Your task to perform on an android device: turn off wifi Image 0: 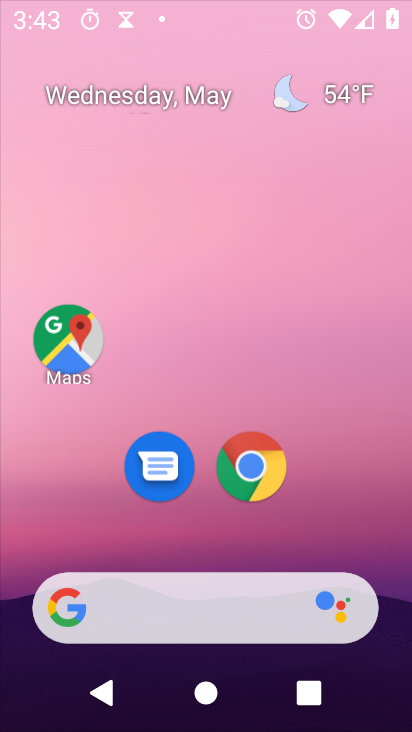
Step 0: click (47, 344)
Your task to perform on an android device: turn off wifi Image 1: 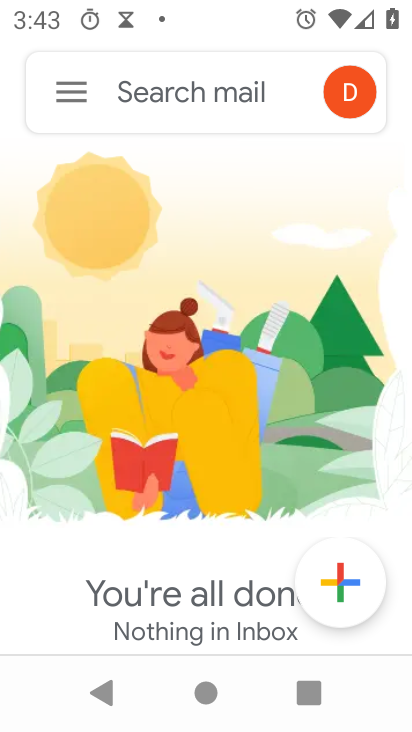
Step 1: press home button
Your task to perform on an android device: turn off wifi Image 2: 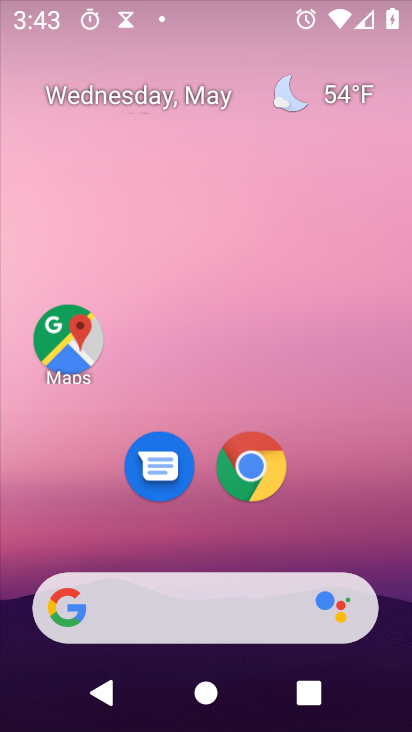
Step 2: drag from (363, 508) to (229, 114)
Your task to perform on an android device: turn off wifi Image 3: 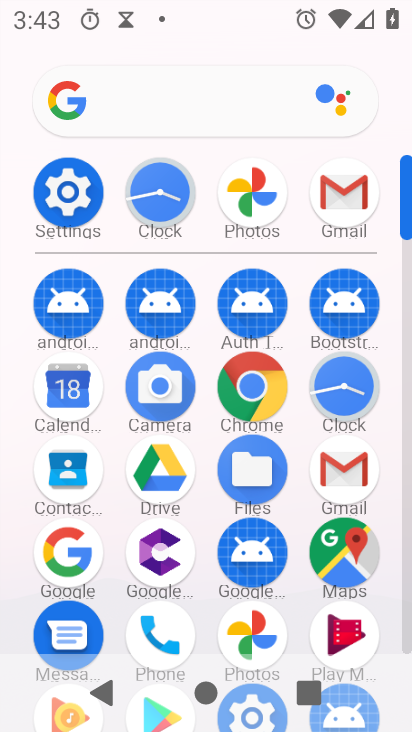
Step 3: click (66, 176)
Your task to perform on an android device: turn off wifi Image 4: 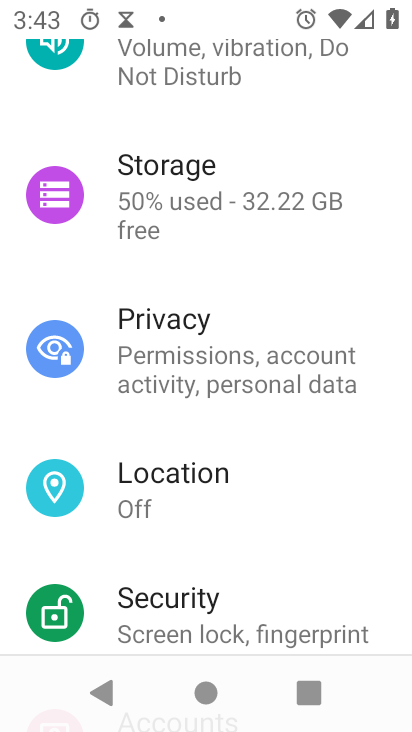
Step 4: drag from (228, 172) to (188, 687)
Your task to perform on an android device: turn off wifi Image 5: 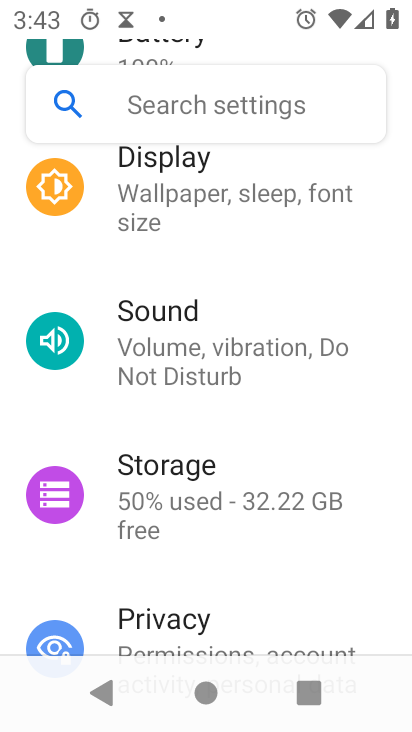
Step 5: drag from (301, 219) to (331, 689)
Your task to perform on an android device: turn off wifi Image 6: 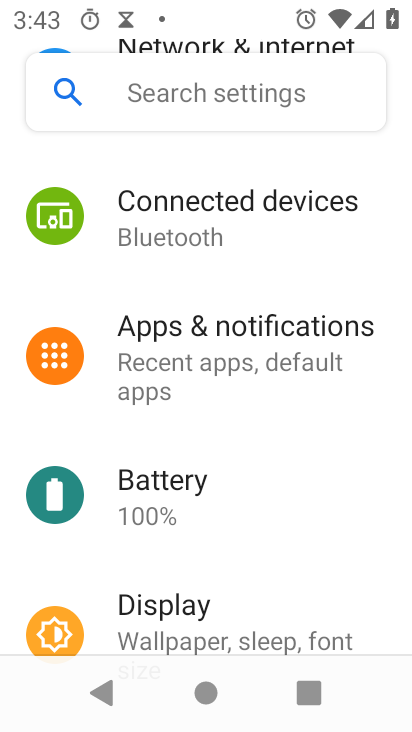
Step 6: drag from (269, 158) to (302, 710)
Your task to perform on an android device: turn off wifi Image 7: 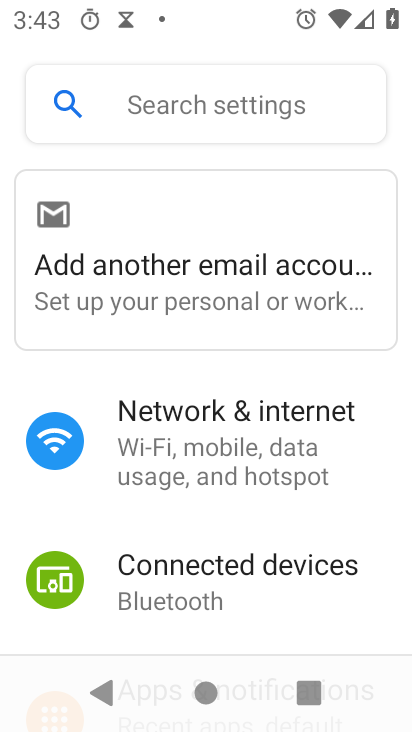
Step 7: click (322, 460)
Your task to perform on an android device: turn off wifi Image 8: 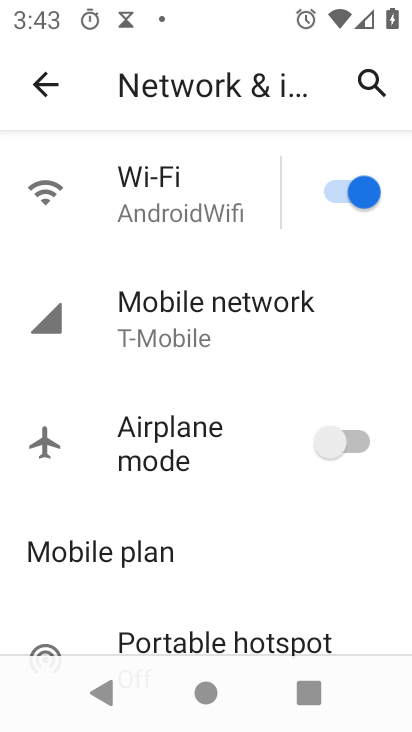
Step 8: click (364, 199)
Your task to perform on an android device: turn off wifi Image 9: 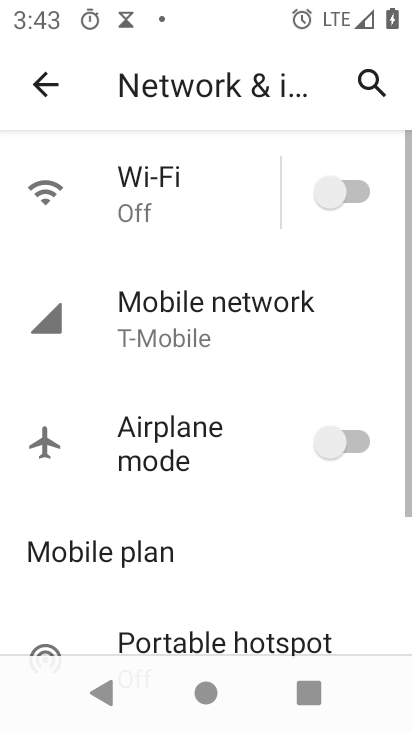
Step 9: task complete